Your task to perform on an android device: check google app version Image 0: 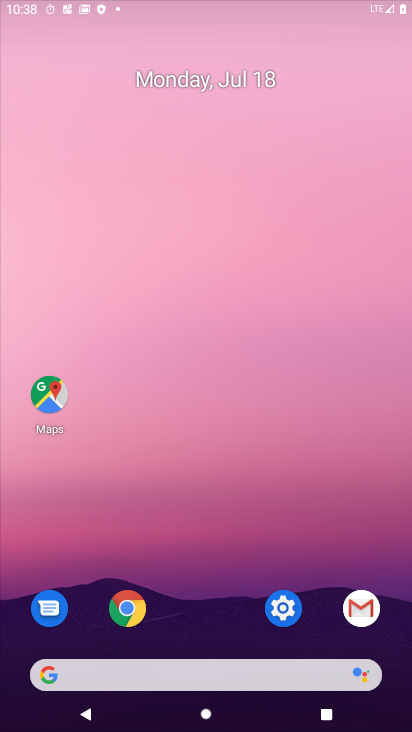
Step 0: press home button
Your task to perform on an android device: check google app version Image 1: 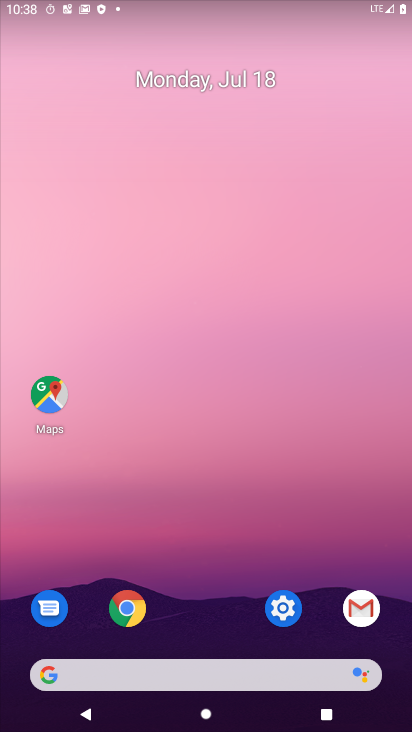
Step 1: click (132, 616)
Your task to perform on an android device: check google app version Image 2: 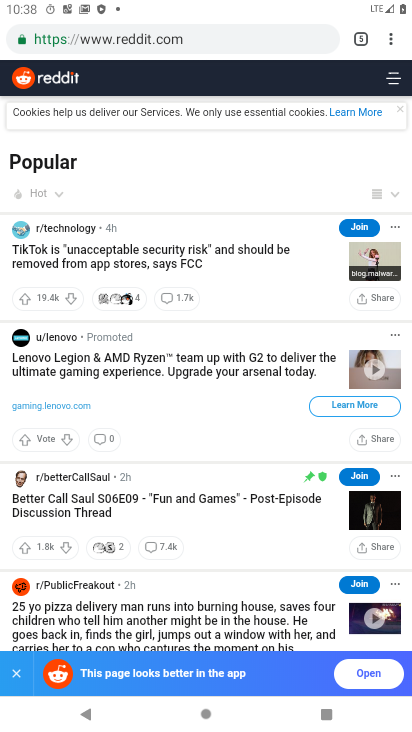
Step 2: click (389, 43)
Your task to perform on an android device: check google app version Image 3: 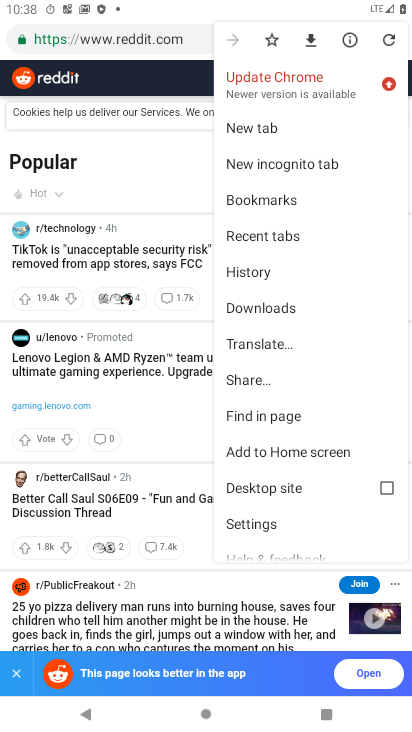
Step 3: click (256, 525)
Your task to perform on an android device: check google app version Image 4: 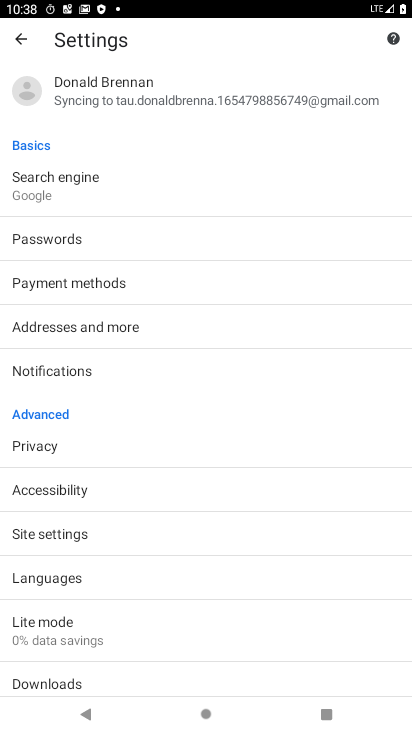
Step 4: drag from (185, 595) to (242, 355)
Your task to perform on an android device: check google app version Image 5: 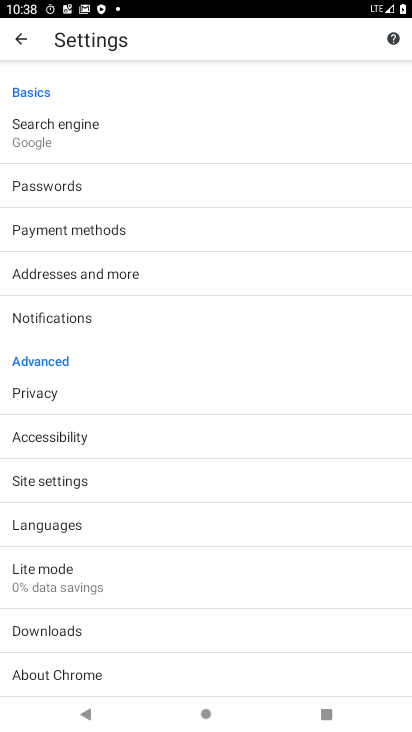
Step 5: click (138, 680)
Your task to perform on an android device: check google app version Image 6: 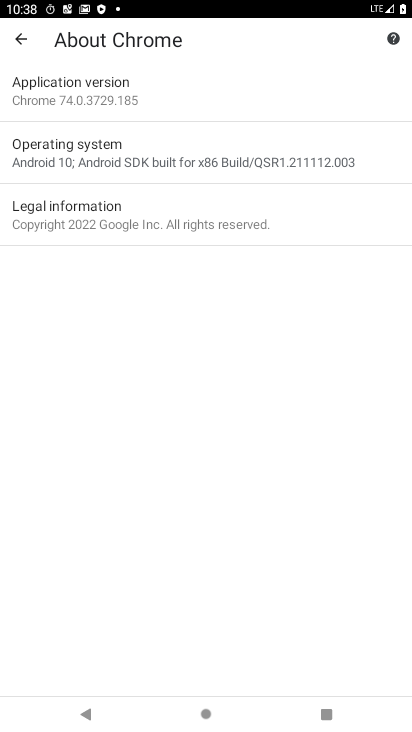
Step 6: click (92, 103)
Your task to perform on an android device: check google app version Image 7: 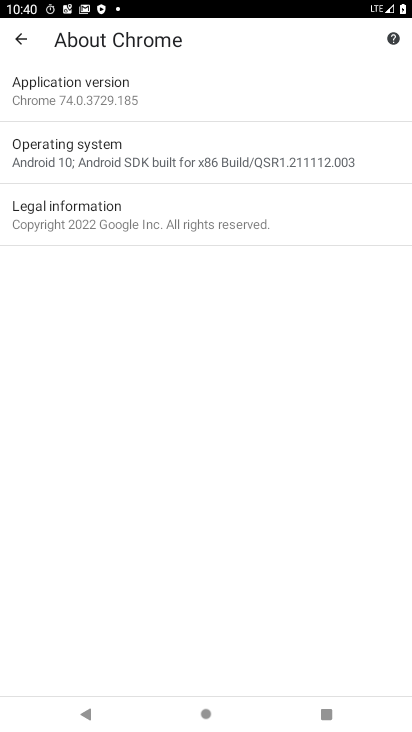
Step 7: task complete